Your task to perform on an android device: check battery use Image 0: 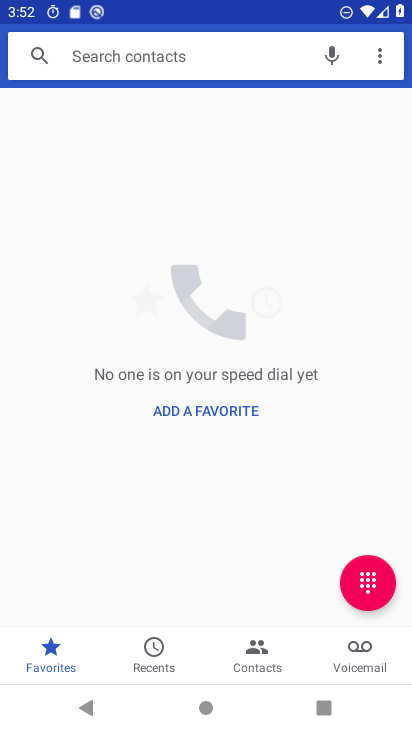
Step 0: press home button
Your task to perform on an android device: check battery use Image 1: 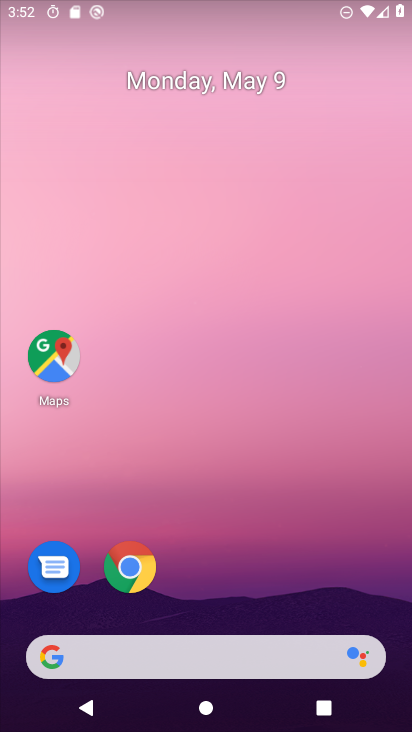
Step 1: drag from (293, 548) to (345, 30)
Your task to perform on an android device: check battery use Image 2: 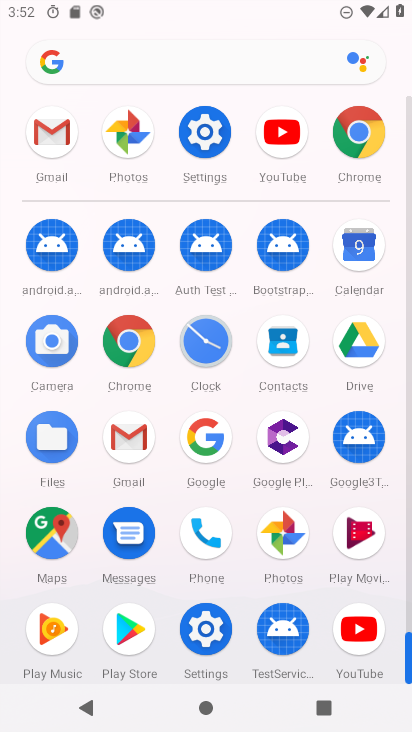
Step 2: click (199, 135)
Your task to perform on an android device: check battery use Image 3: 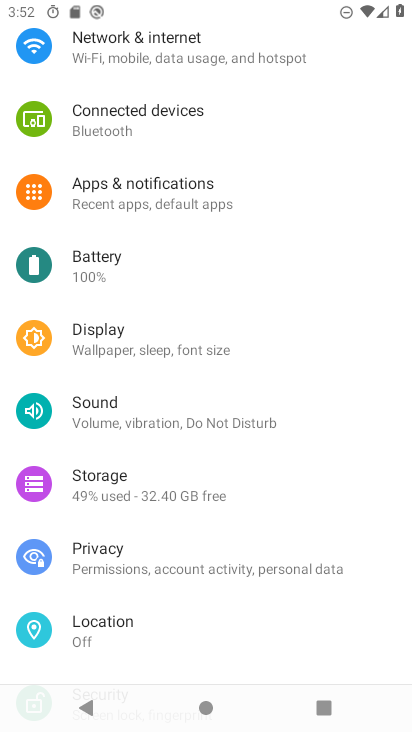
Step 3: drag from (195, 600) to (202, 547)
Your task to perform on an android device: check battery use Image 4: 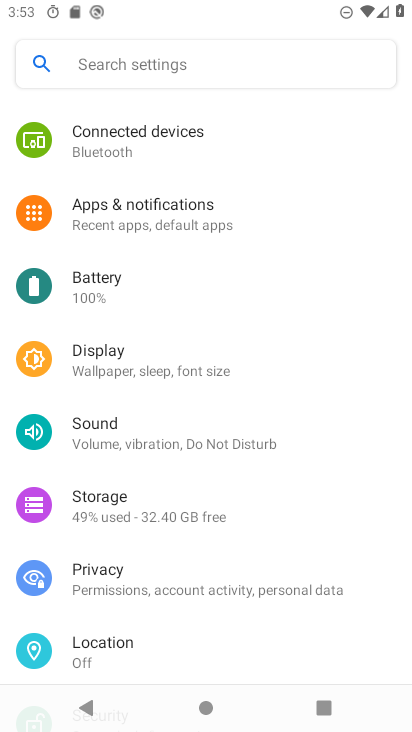
Step 4: click (122, 285)
Your task to perform on an android device: check battery use Image 5: 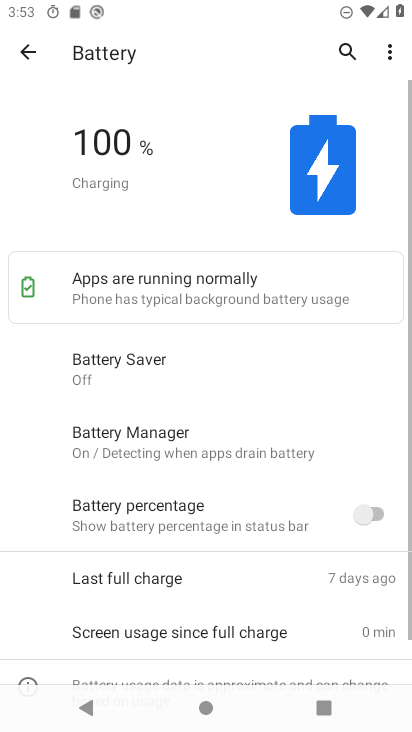
Step 5: click (391, 56)
Your task to perform on an android device: check battery use Image 6: 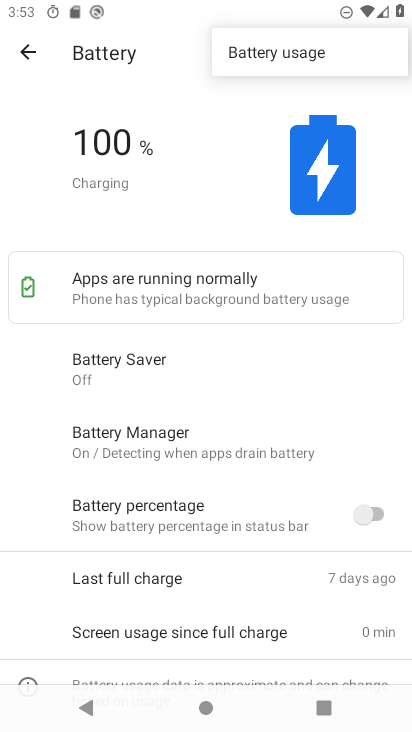
Step 6: click (301, 45)
Your task to perform on an android device: check battery use Image 7: 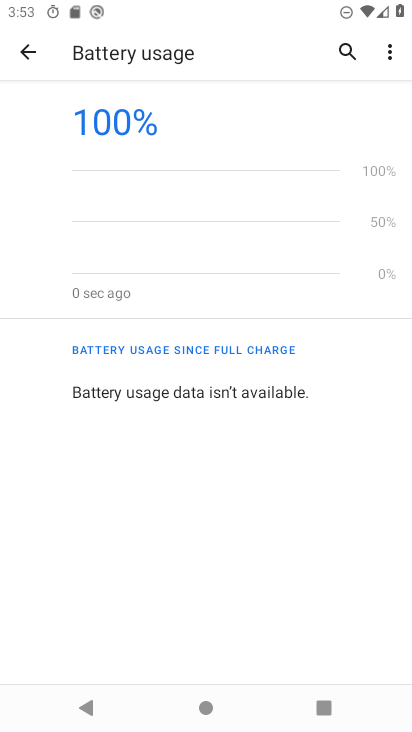
Step 7: task complete